Your task to perform on an android device: What is the recent news? Image 0: 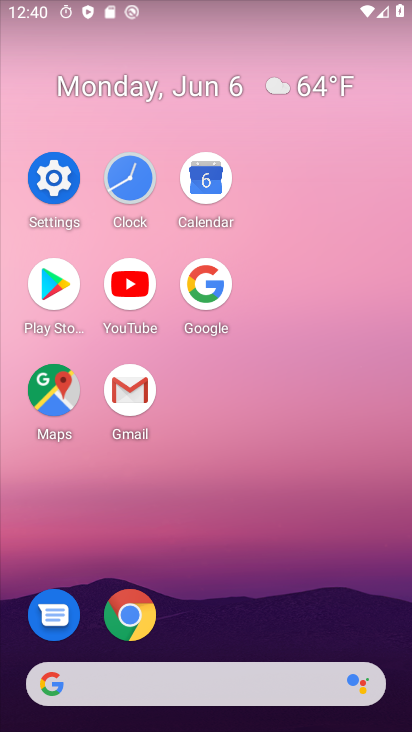
Step 0: click (213, 278)
Your task to perform on an android device: What is the recent news? Image 1: 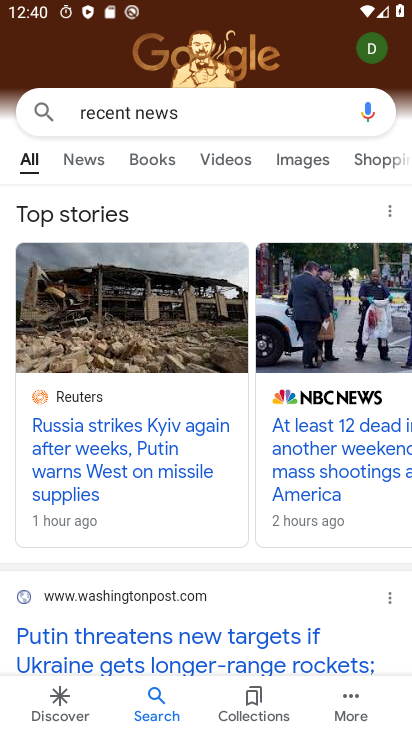
Step 1: drag from (205, 111) to (90, 111)
Your task to perform on an android device: What is the recent news? Image 2: 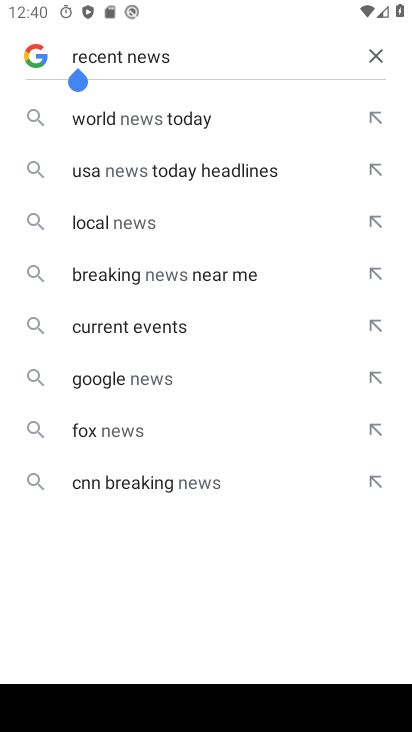
Step 2: click (383, 57)
Your task to perform on an android device: What is the recent news? Image 3: 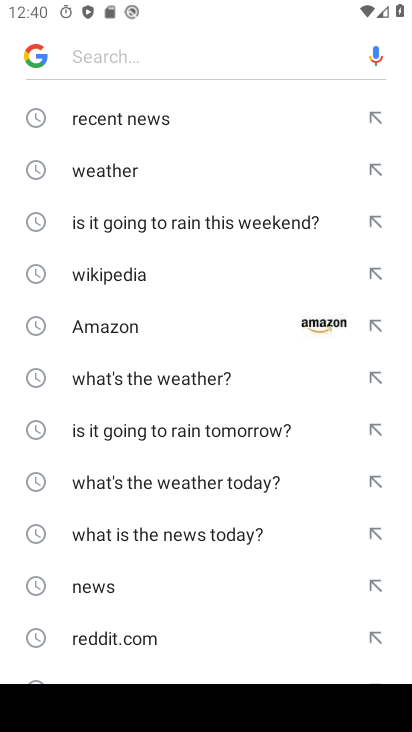
Step 3: click (169, 134)
Your task to perform on an android device: What is the recent news? Image 4: 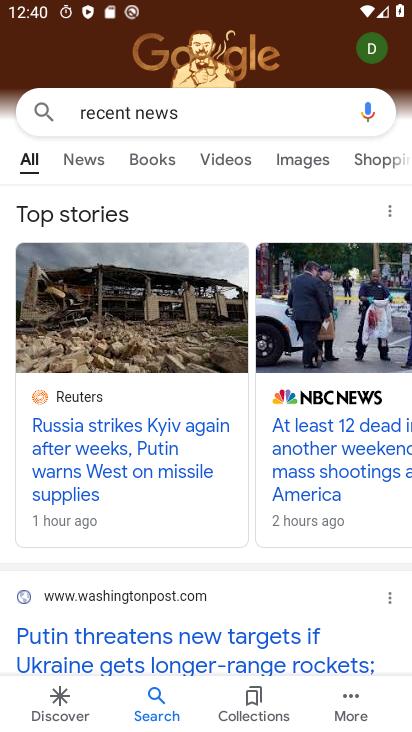
Step 4: task complete